Your task to perform on an android device: Search for vegetarian restaurants on Maps Image 0: 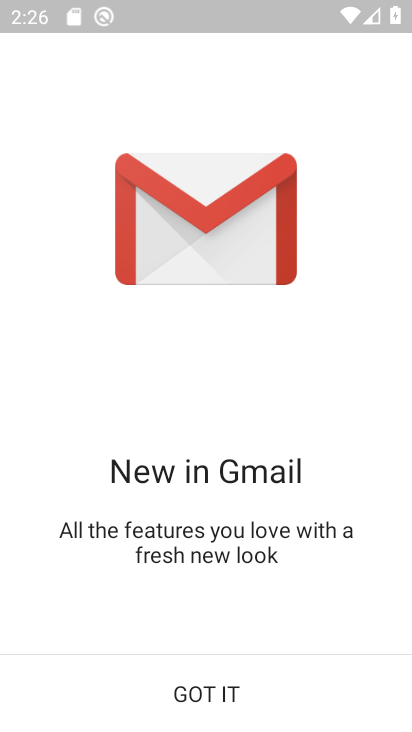
Step 0: press home button
Your task to perform on an android device: Search for vegetarian restaurants on Maps Image 1: 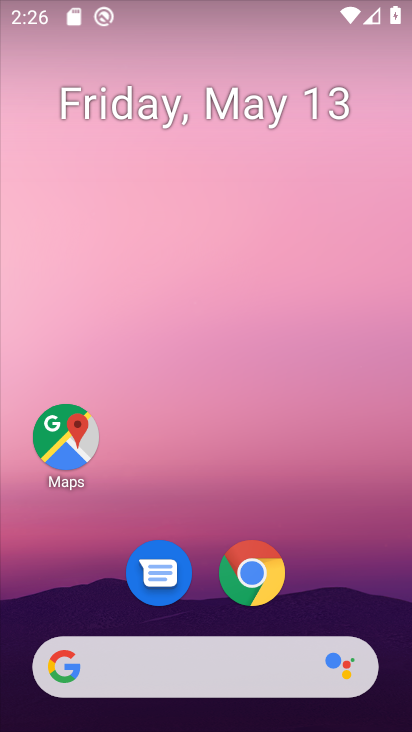
Step 1: drag from (366, 565) to (411, 86)
Your task to perform on an android device: Search for vegetarian restaurants on Maps Image 2: 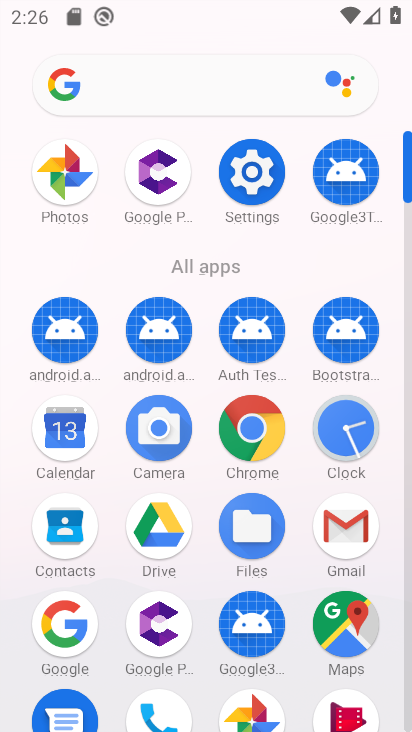
Step 2: click (357, 680)
Your task to perform on an android device: Search for vegetarian restaurants on Maps Image 3: 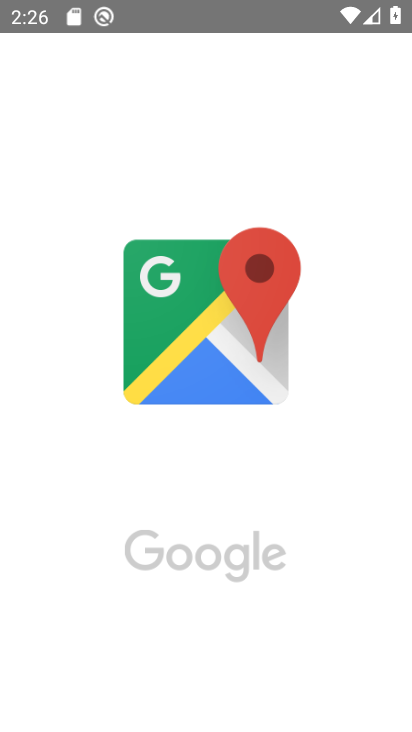
Step 3: click (342, 681)
Your task to perform on an android device: Search for vegetarian restaurants on Maps Image 4: 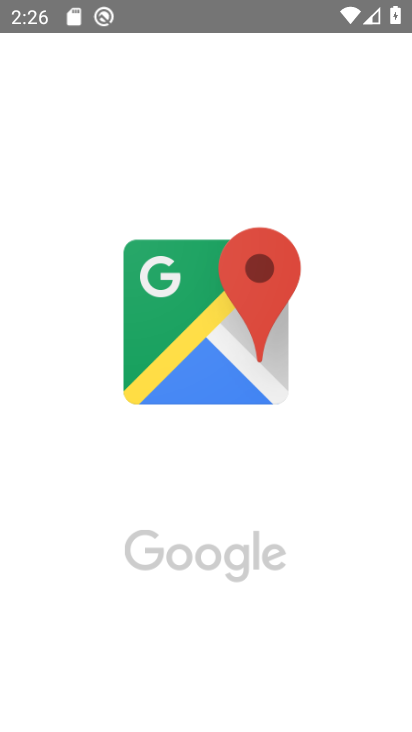
Step 4: click (348, 622)
Your task to perform on an android device: Search for vegetarian restaurants on Maps Image 5: 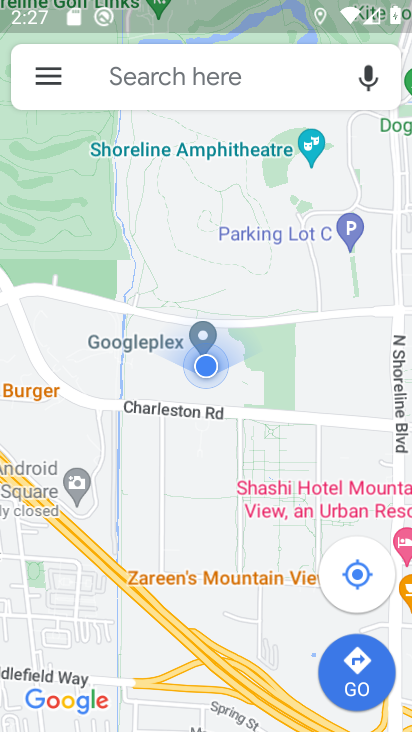
Step 5: click (118, 62)
Your task to perform on an android device: Search for vegetarian restaurants on Maps Image 6: 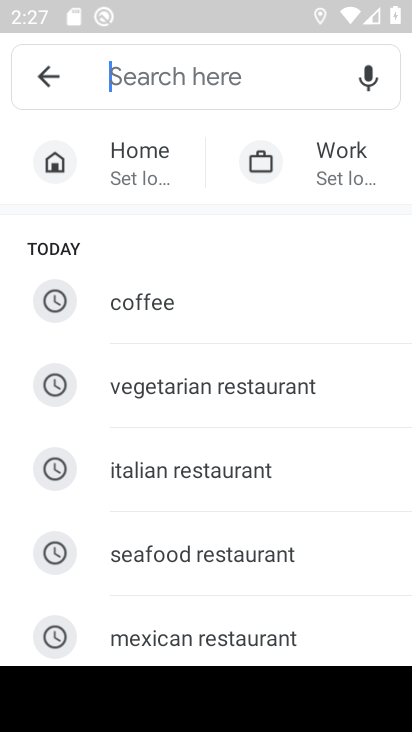
Step 6: click (180, 388)
Your task to perform on an android device: Search for vegetarian restaurants on Maps Image 7: 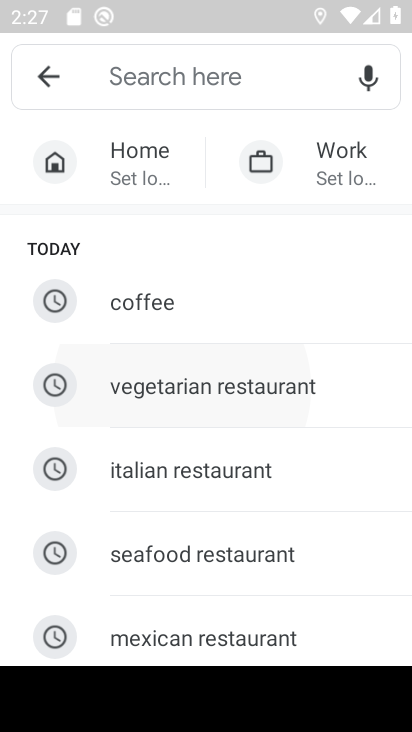
Step 7: click (180, 384)
Your task to perform on an android device: Search for vegetarian restaurants on Maps Image 8: 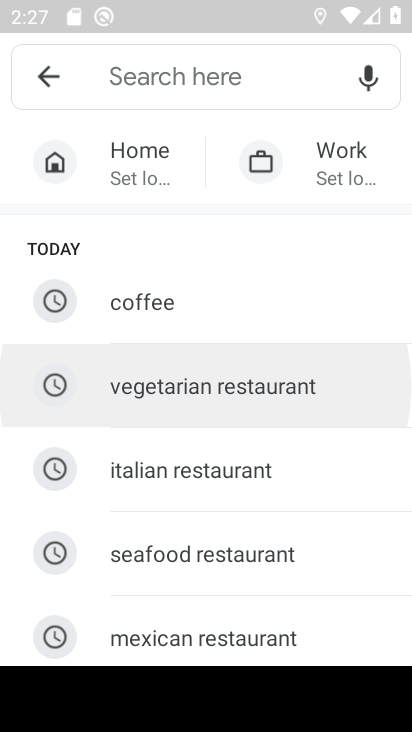
Step 8: click (179, 381)
Your task to perform on an android device: Search for vegetarian restaurants on Maps Image 9: 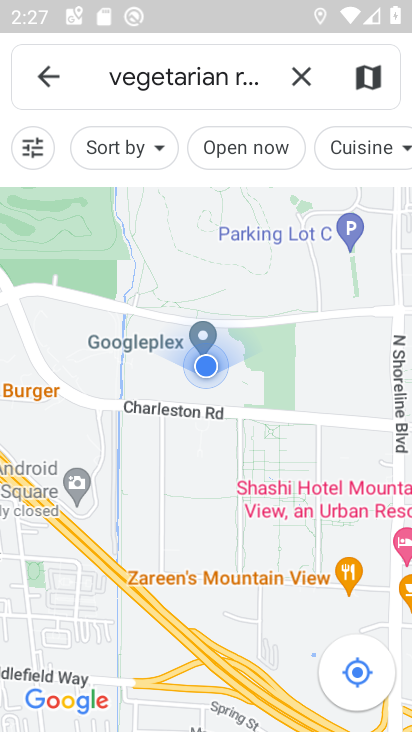
Step 9: task complete